Your task to perform on an android device: Go to eBay Image 0: 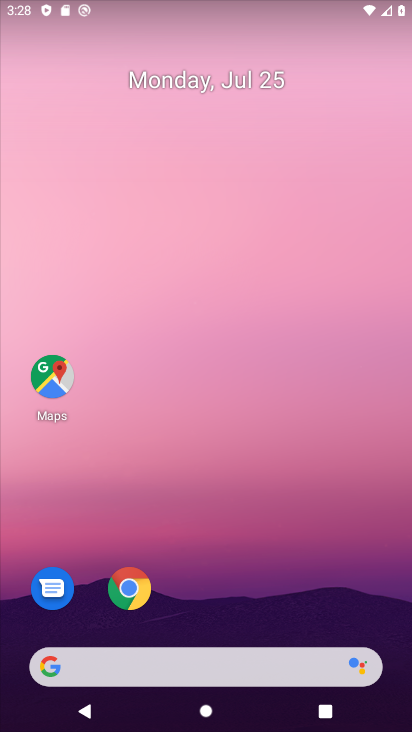
Step 0: click (126, 590)
Your task to perform on an android device: Go to eBay Image 1: 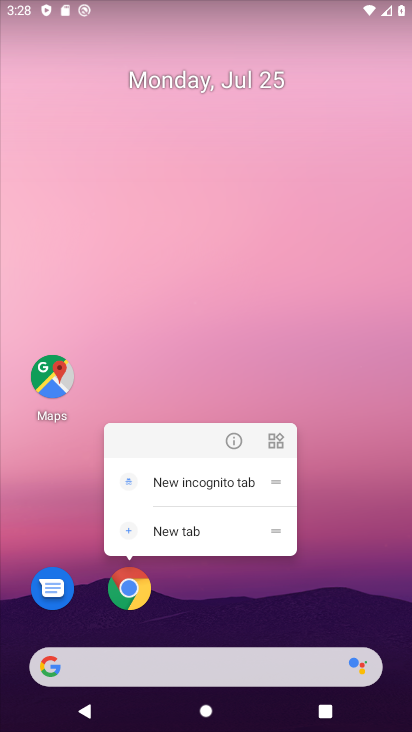
Step 1: click (129, 588)
Your task to perform on an android device: Go to eBay Image 2: 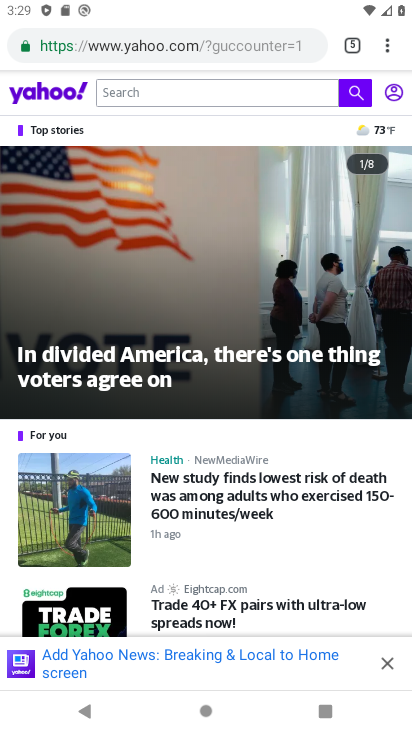
Step 2: click (386, 51)
Your task to perform on an android device: Go to eBay Image 3: 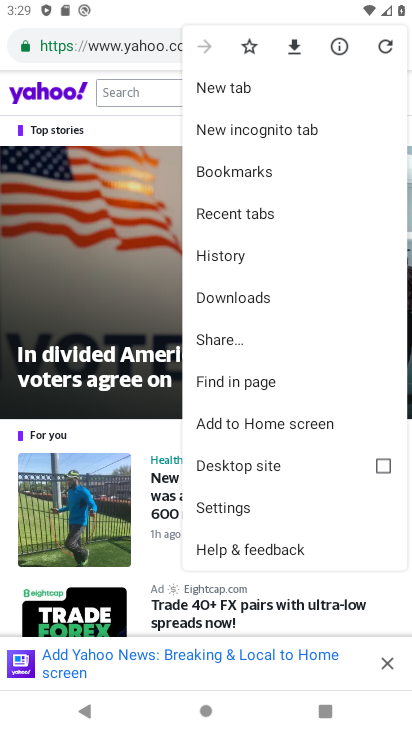
Step 3: click (208, 91)
Your task to perform on an android device: Go to eBay Image 4: 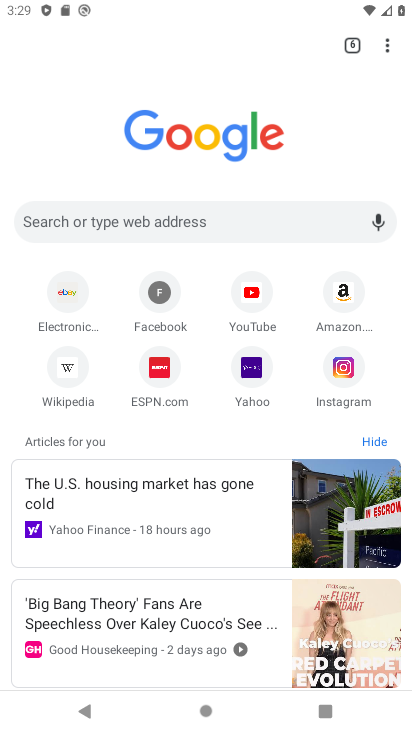
Step 4: click (270, 232)
Your task to perform on an android device: Go to eBay Image 5: 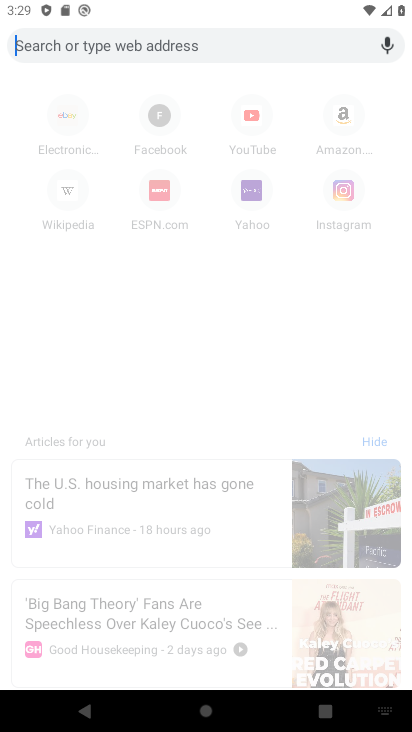
Step 5: type "eBay"
Your task to perform on an android device: Go to eBay Image 6: 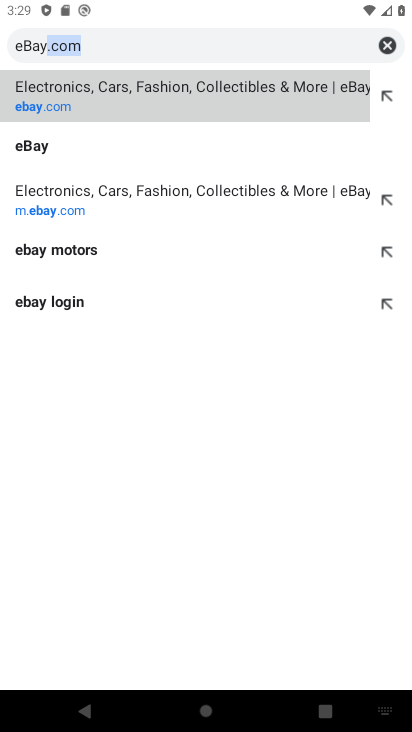
Step 6: type ""
Your task to perform on an android device: Go to eBay Image 7: 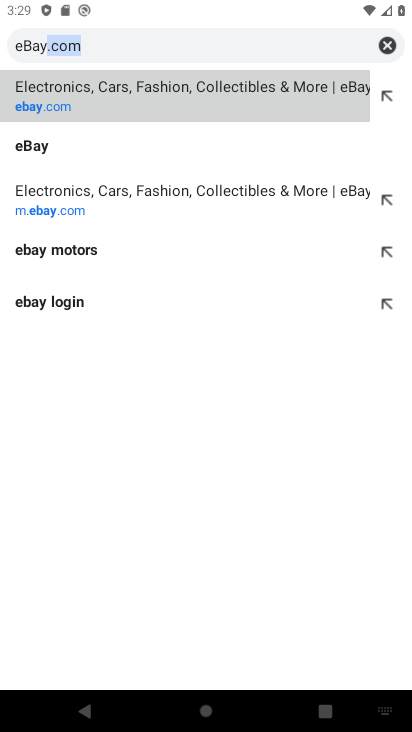
Step 7: click (35, 137)
Your task to perform on an android device: Go to eBay Image 8: 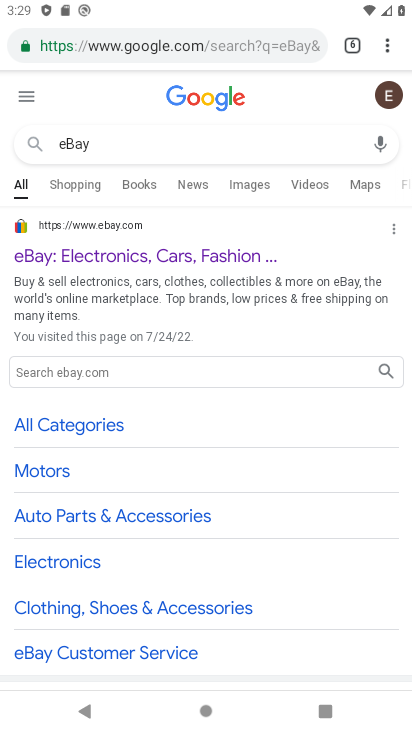
Step 8: click (160, 251)
Your task to perform on an android device: Go to eBay Image 9: 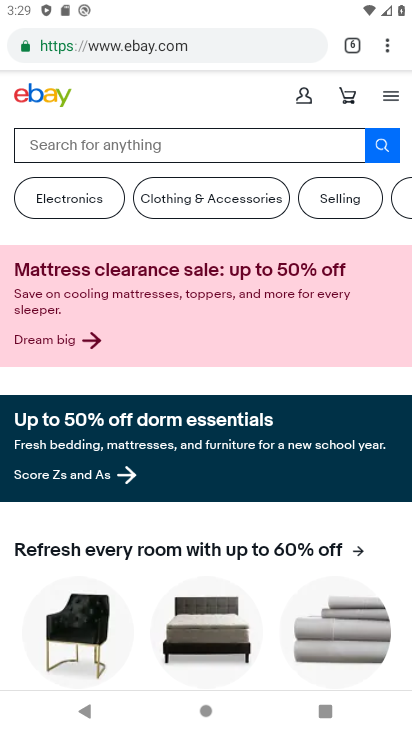
Step 9: task complete